Your task to perform on an android device: Open eBay Image 0: 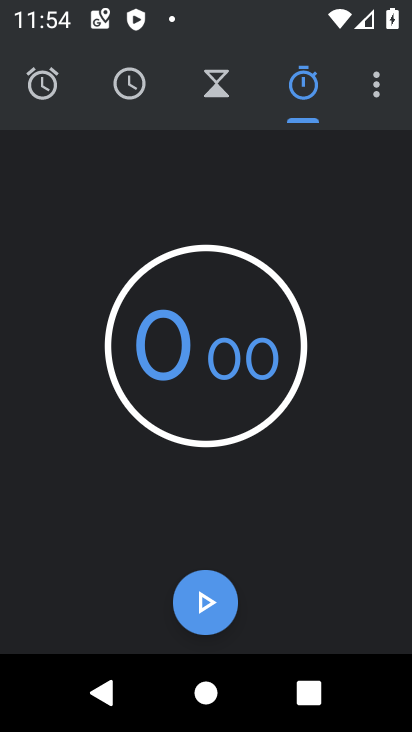
Step 0: press home button
Your task to perform on an android device: Open eBay Image 1: 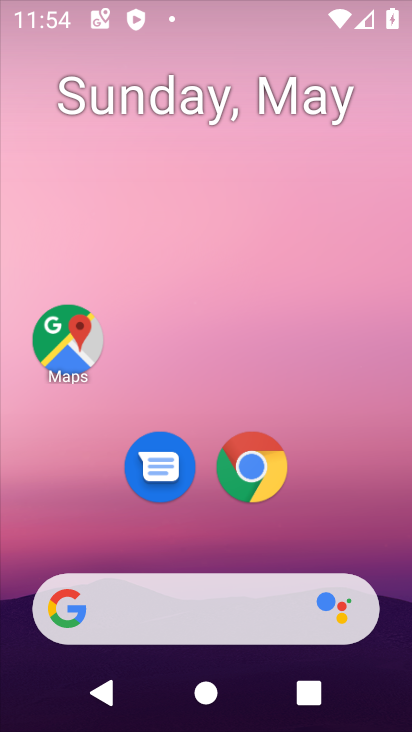
Step 1: drag from (389, 645) to (155, 43)
Your task to perform on an android device: Open eBay Image 2: 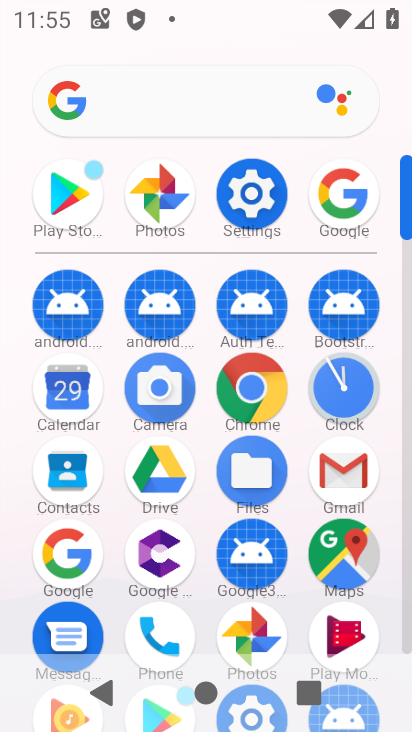
Step 2: click (61, 542)
Your task to perform on an android device: Open eBay Image 3: 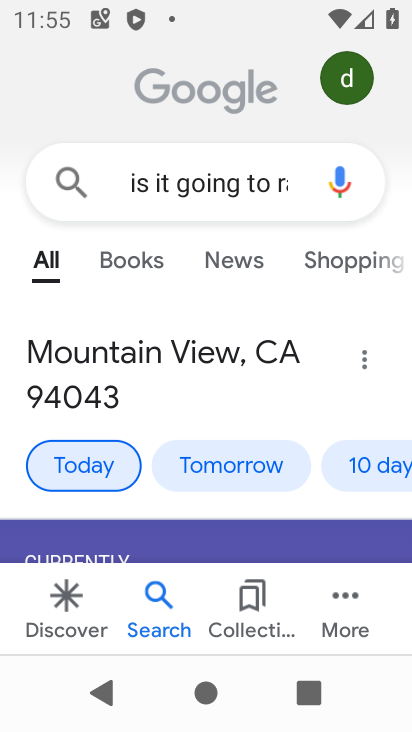
Step 3: press back button
Your task to perform on an android device: Open eBay Image 4: 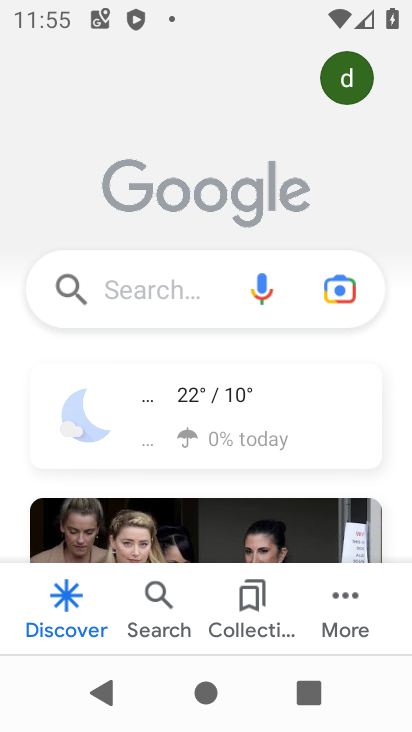
Step 4: click (136, 274)
Your task to perform on an android device: Open eBay Image 5: 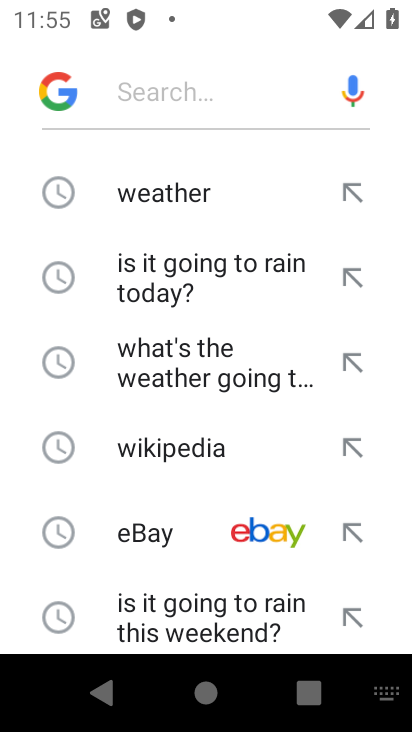
Step 5: click (175, 541)
Your task to perform on an android device: Open eBay Image 6: 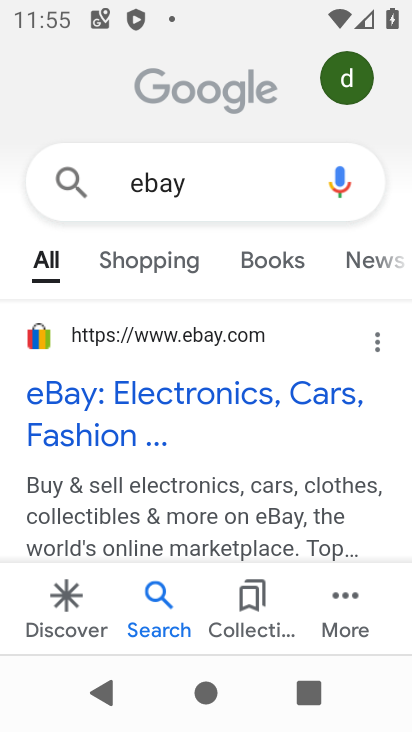
Step 6: task complete